Your task to perform on an android device: Go to network settings Image 0: 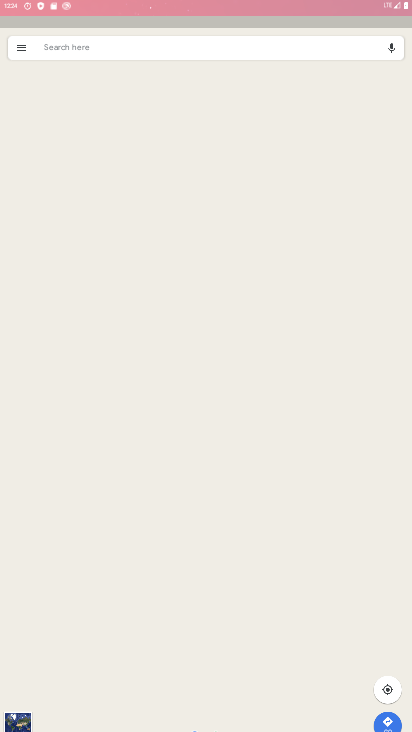
Step 0: press home button
Your task to perform on an android device: Go to network settings Image 1: 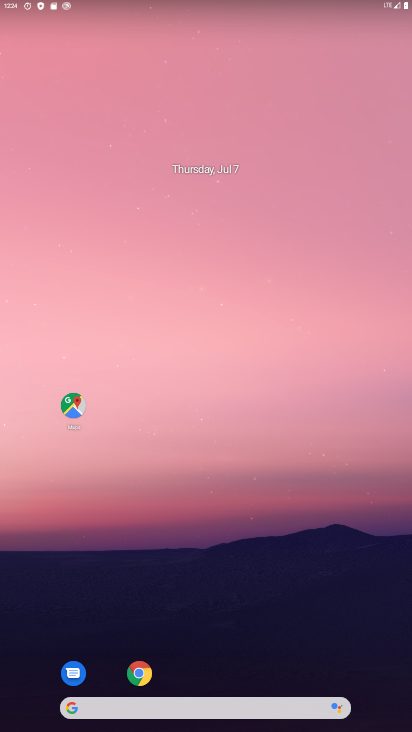
Step 1: drag from (195, 700) to (214, 88)
Your task to perform on an android device: Go to network settings Image 2: 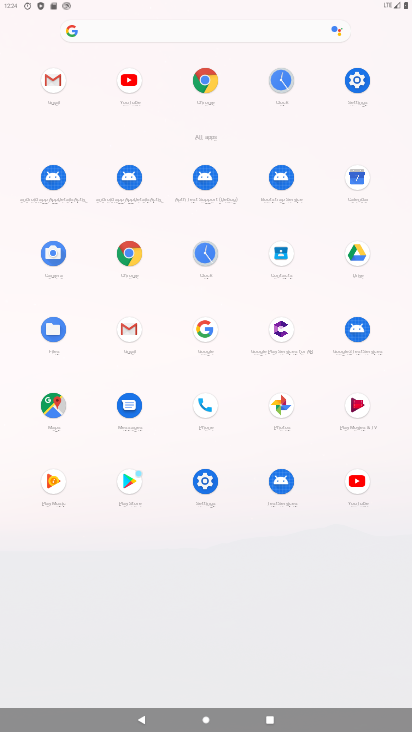
Step 2: click (211, 485)
Your task to perform on an android device: Go to network settings Image 3: 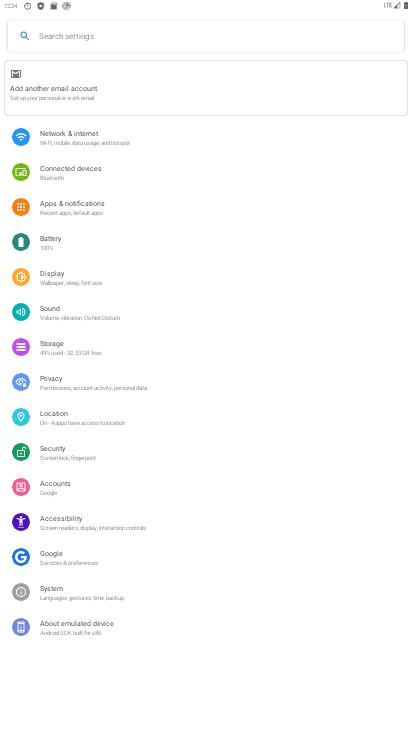
Step 3: click (113, 140)
Your task to perform on an android device: Go to network settings Image 4: 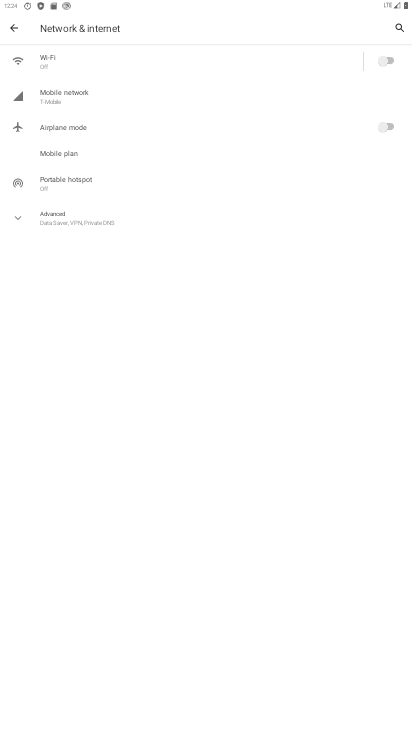
Step 4: click (58, 222)
Your task to perform on an android device: Go to network settings Image 5: 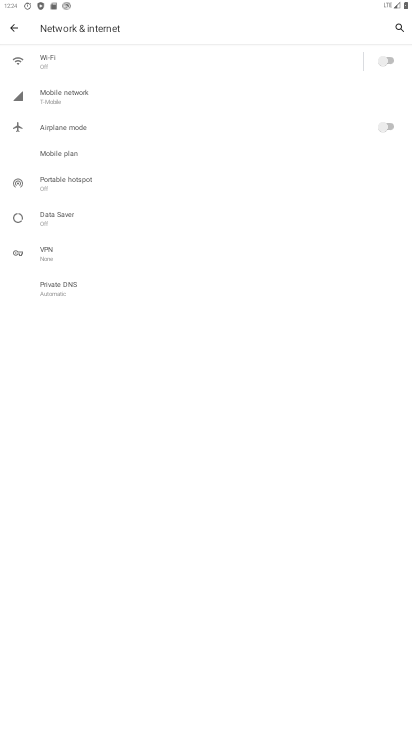
Step 5: task complete